Your task to perform on an android device: empty trash in google photos Image 0: 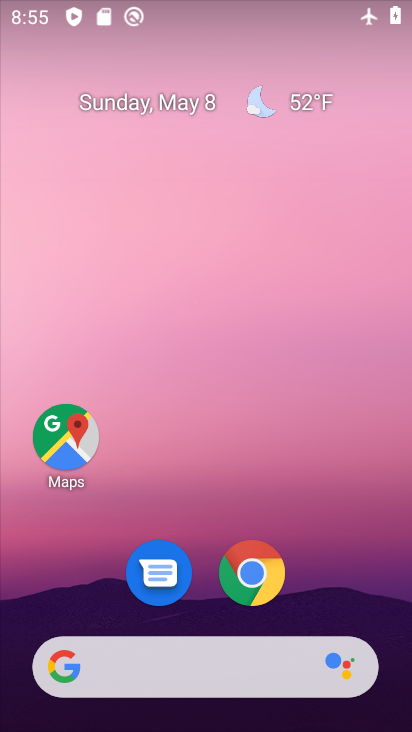
Step 0: drag from (201, 723) to (173, 224)
Your task to perform on an android device: empty trash in google photos Image 1: 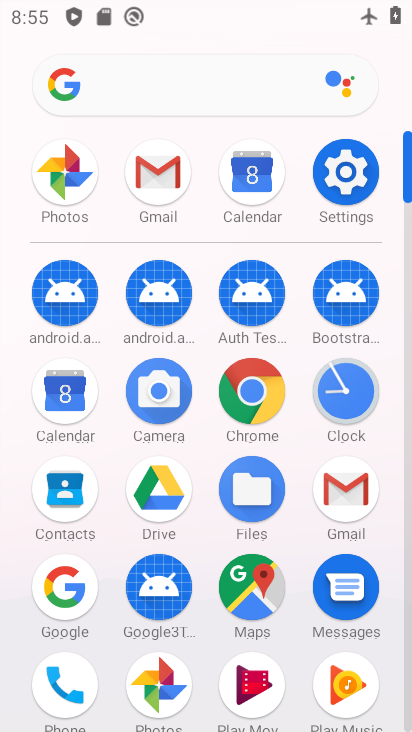
Step 1: click (155, 674)
Your task to perform on an android device: empty trash in google photos Image 2: 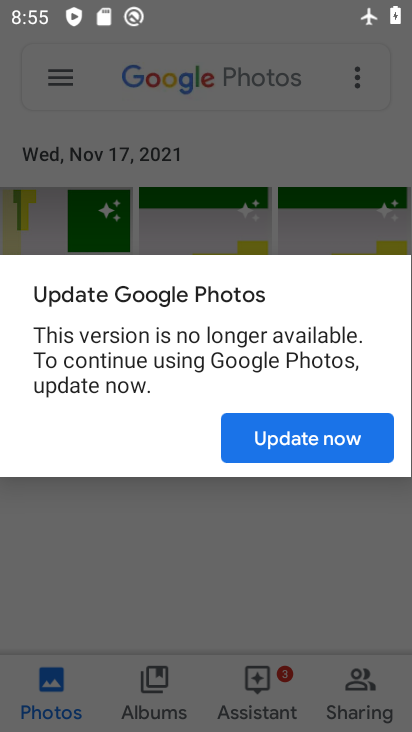
Step 2: task complete